Your task to perform on an android device: turn off location Image 0: 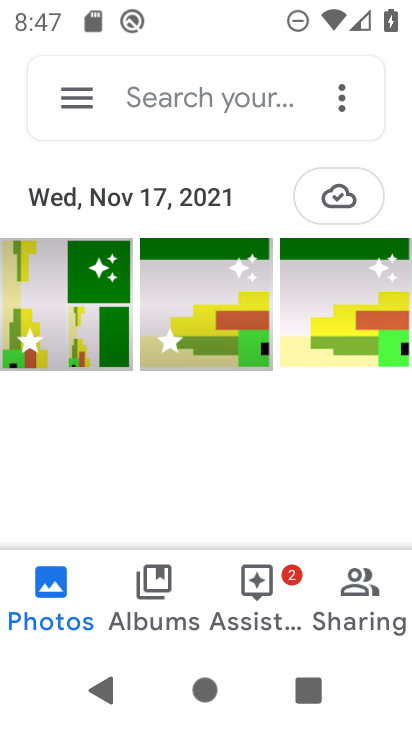
Step 0: click (355, 420)
Your task to perform on an android device: turn off location Image 1: 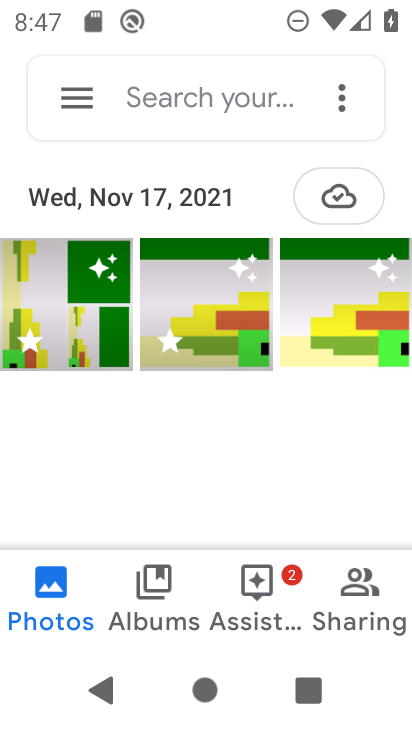
Step 1: press home button
Your task to perform on an android device: turn off location Image 2: 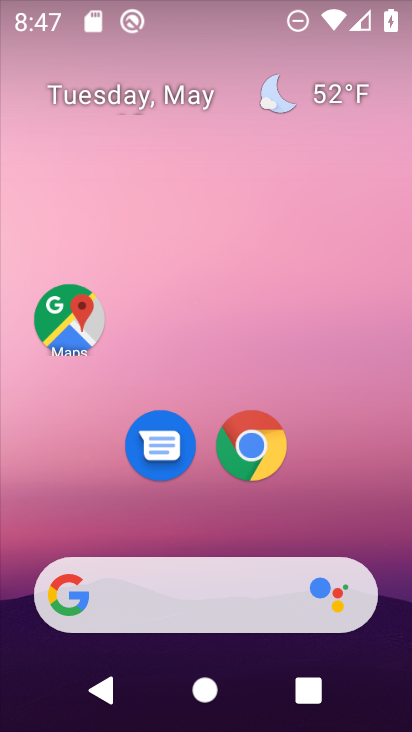
Step 2: drag from (242, 524) to (255, 238)
Your task to perform on an android device: turn off location Image 3: 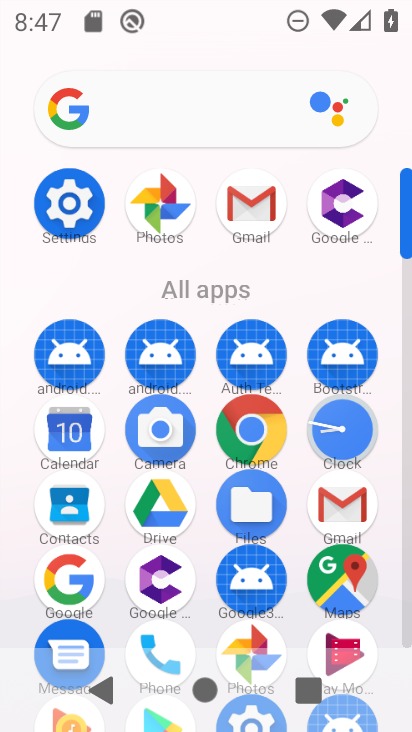
Step 3: drag from (288, 623) to (292, 323)
Your task to perform on an android device: turn off location Image 4: 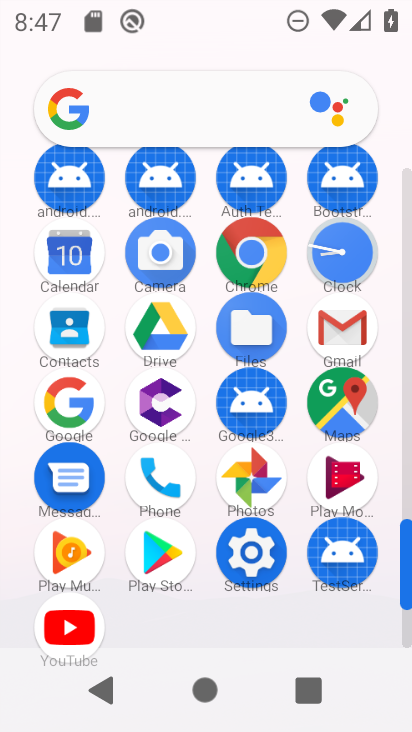
Step 4: click (257, 567)
Your task to perform on an android device: turn off location Image 5: 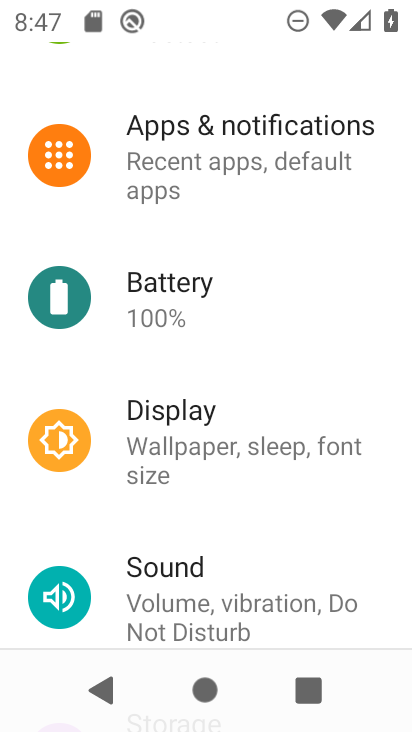
Step 5: drag from (227, 504) to (227, 230)
Your task to perform on an android device: turn off location Image 6: 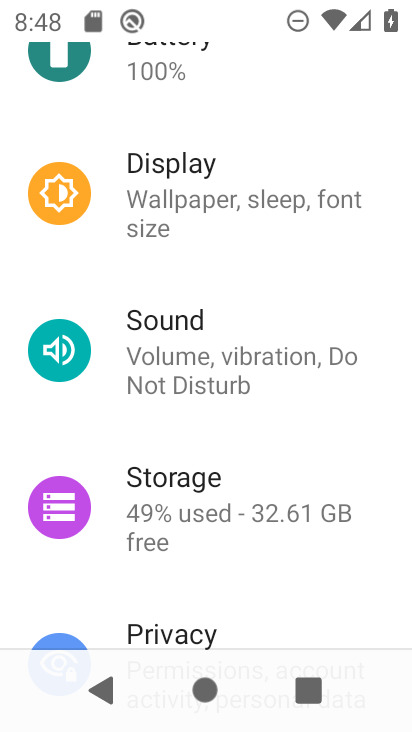
Step 6: drag from (256, 528) to (275, 286)
Your task to perform on an android device: turn off location Image 7: 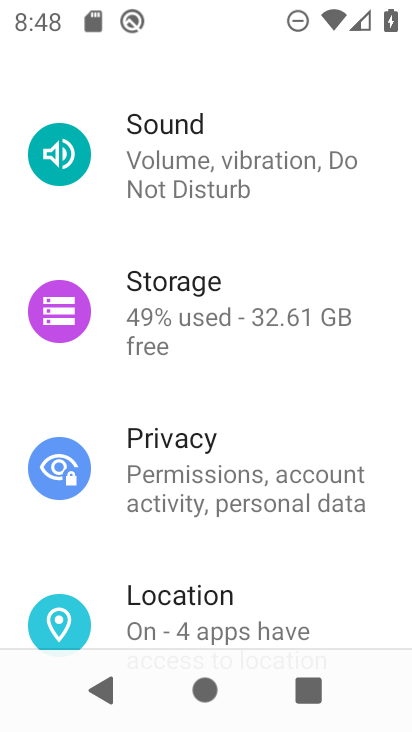
Step 7: click (211, 623)
Your task to perform on an android device: turn off location Image 8: 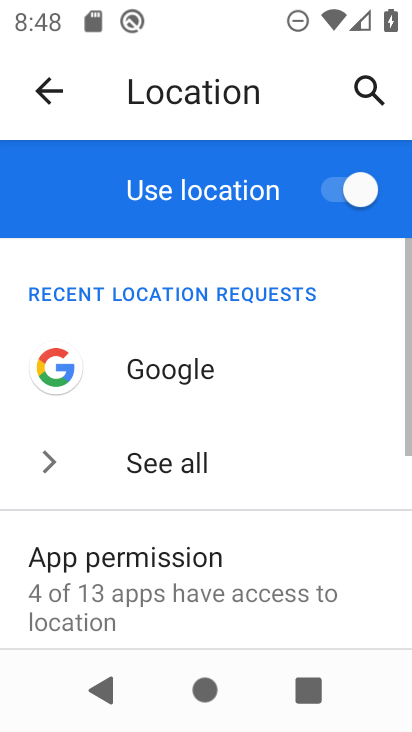
Step 8: task complete